Your task to perform on an android device: Go to battery settings Image 0: 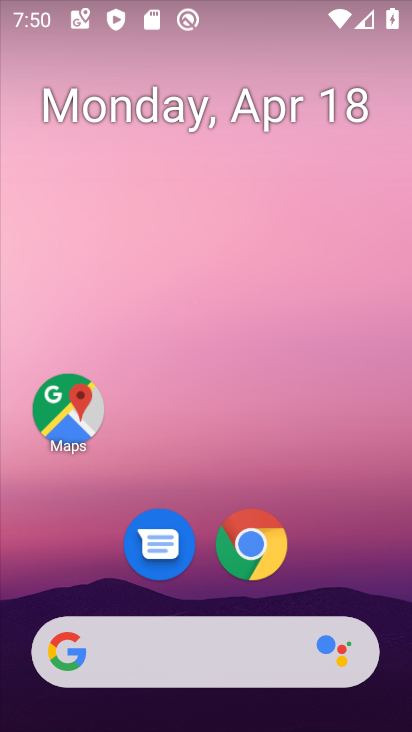
Step 0: drag from (391, 578) to (405, 540)
Your task to perform on an android device: Go to battery settings Image 1: 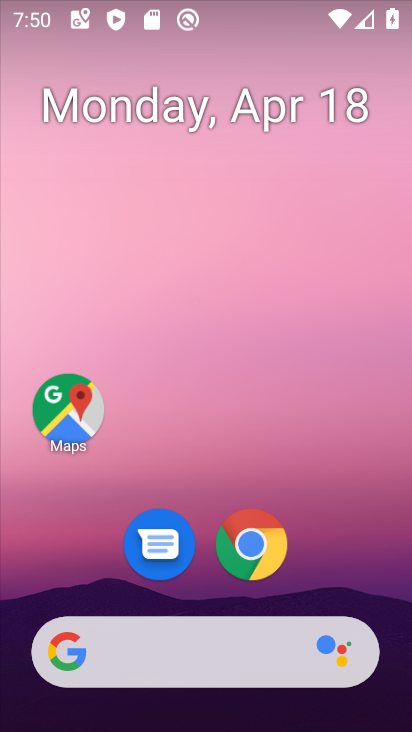
Step 1: drag from (380, 531) to (385, 49)
Your task to perform on an android device: Go to battery settings Image 2: 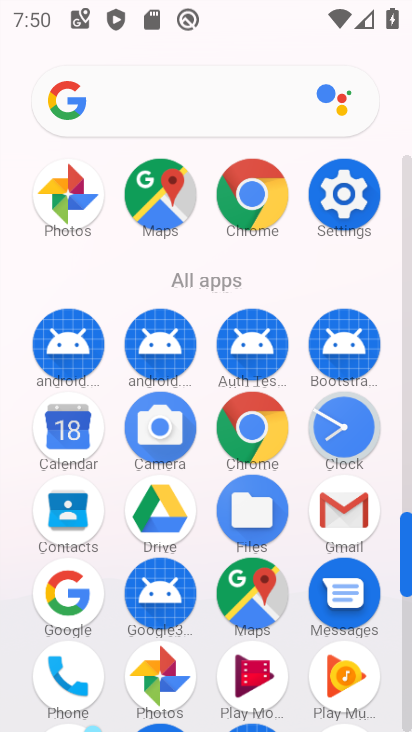
Step 2: click (346, 190)
Your task to perform on an android device: Go to battery settings Image 3: 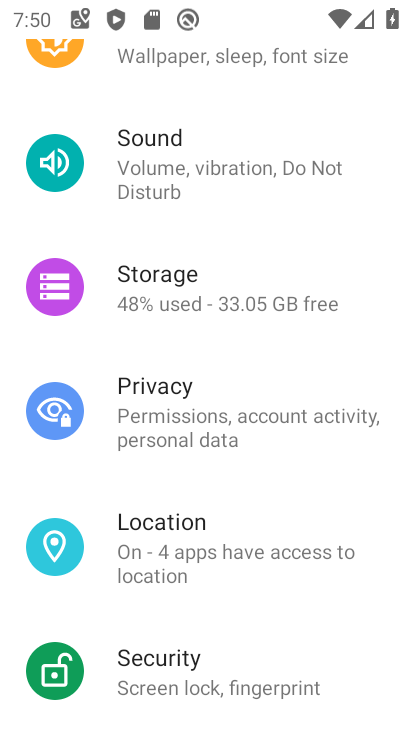
Step 3: drag from (405, 571) to (409, 283)
Your task to perform on an android device: Go to battery settings Image 4: 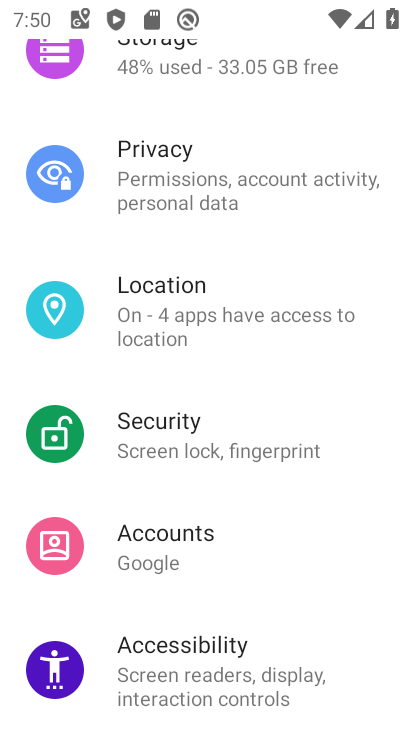
Step 4: drag from (394, 264) to (388, 623)
Your task to perform on an android device: Go to battery settings Image 5: 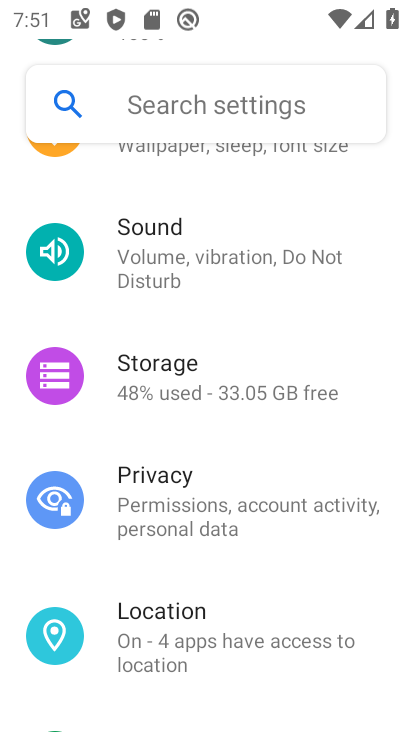
Step 5: drag from (384, 256) to (375, 495)
Your task to perform on an android device: Go to battery settings Image 6: 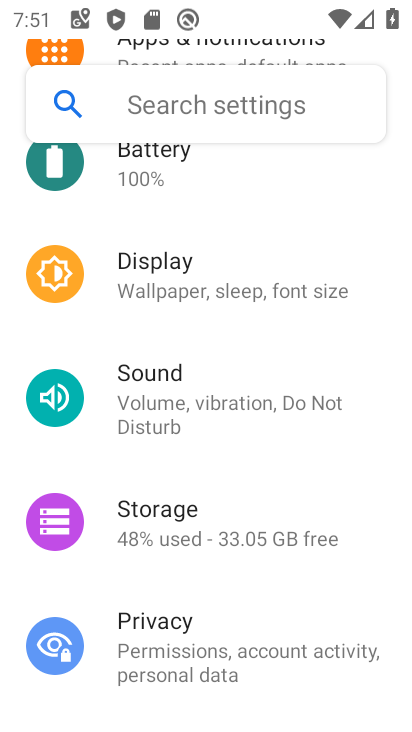
Step 6: click (126, 158)
Your task to perform on an android device: Go to battery settings Image 7: 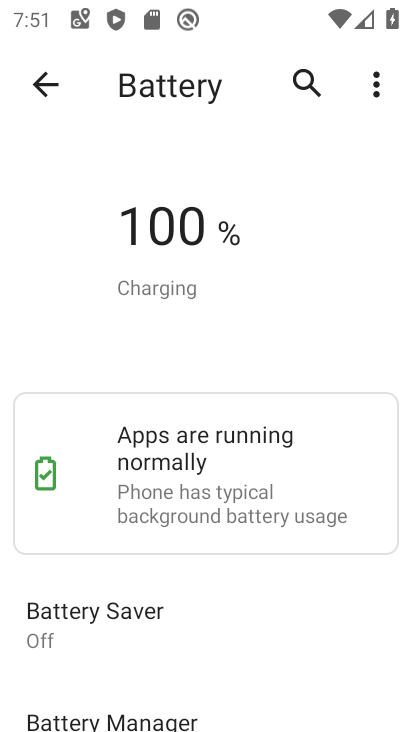
Step 7: task complete